Your task to perform on an android device: toggle javascript in the chrome app Image 0: 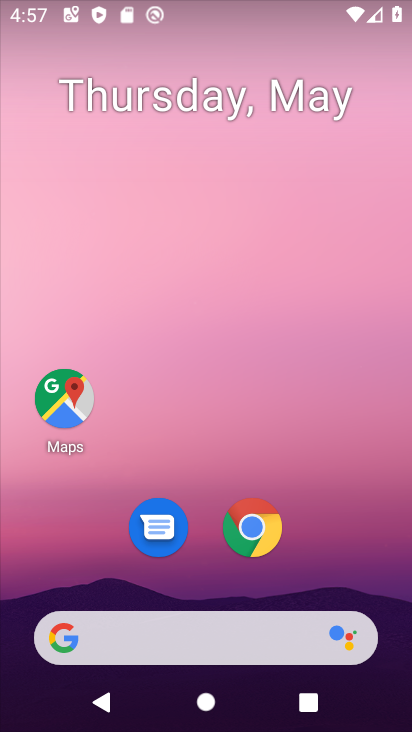
Step 0: drag from (365, 519) to (383, 14)
Your task to perform on an android device: toggle javascript in the chrome app Image 1: 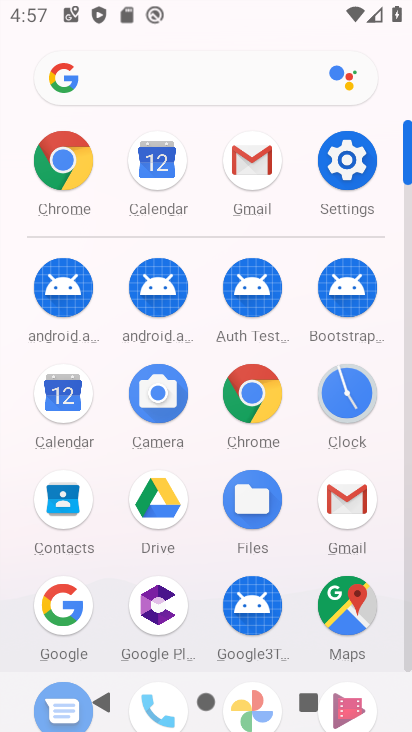
Step 1: click (78, 182)
Your task to perform on an android device: toggle javascript in the chrome app Image 2: 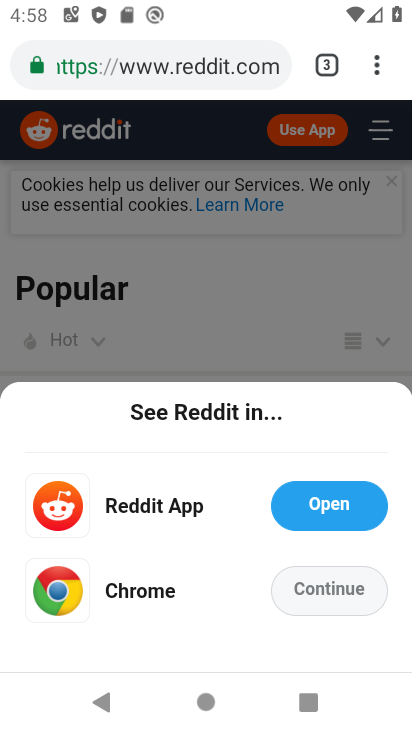
Step 2: drag from (382, 68) to (143, 572)
Your task to perform on an android device: toggle javascript in the chrome app Image 3: 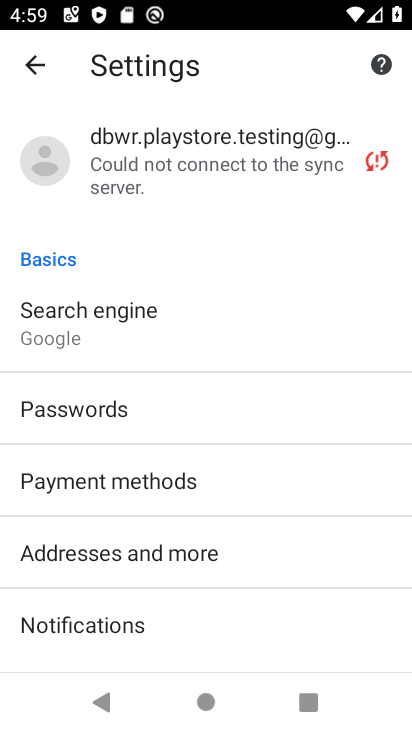
Step 3: drag from (255, 519) to (261, 75)
Your task to perform on an android device: toggle javascript in the chrome app Image 4: 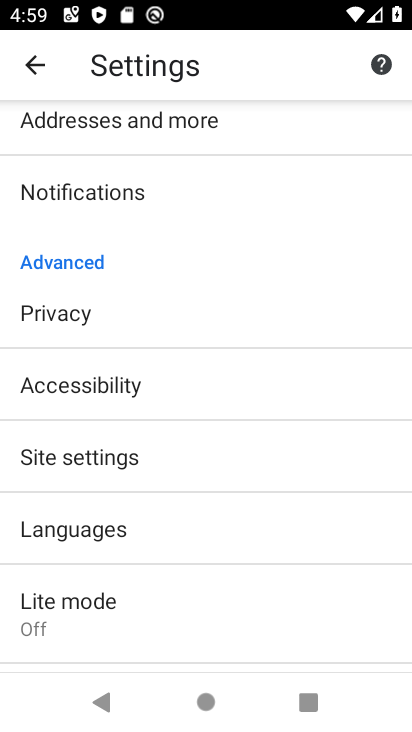
Step 4: drag from (134, 469) to (208, 148)
Your task to perform on an android device: toggle javascript in the chrome app Image 5: 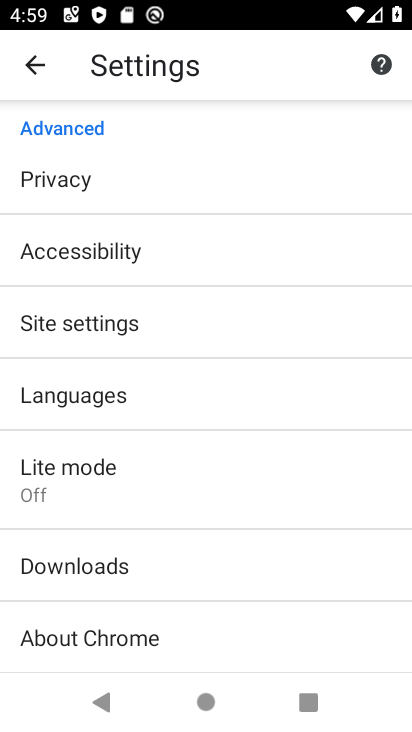
Step 5: click (131, 320)
Your task to perform on an android device: toggle javascript in the chrome app Image 6: 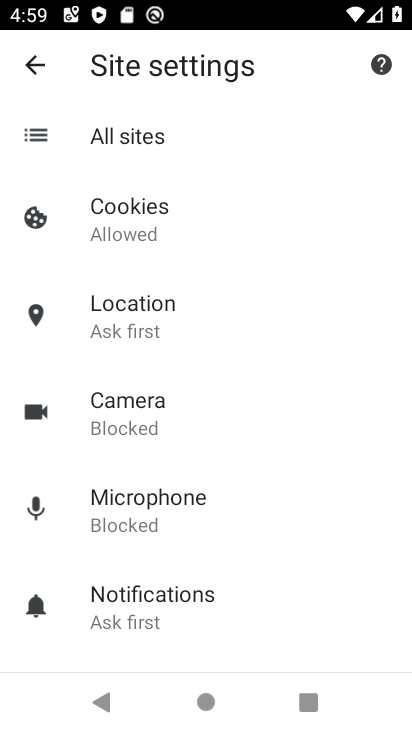
Step 6: drag from (176, 580) to (263, 156)
Your task to perform on an android device: toggle javascript in the chrome app Image 7: 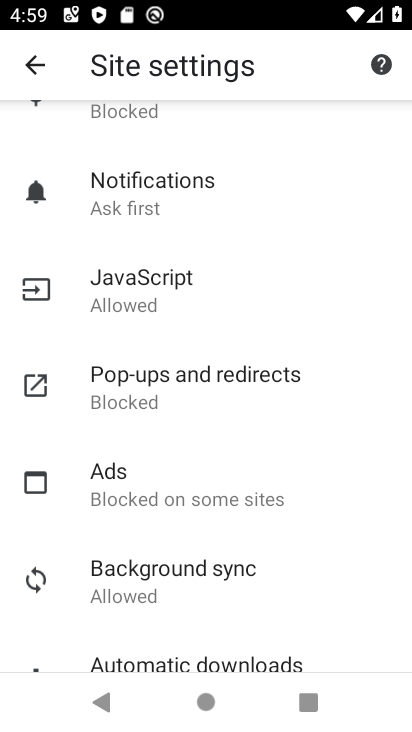
Step 7: click (172, 290)
Your task to perform on an android device: toggle javascript in the chrome app Image 8: 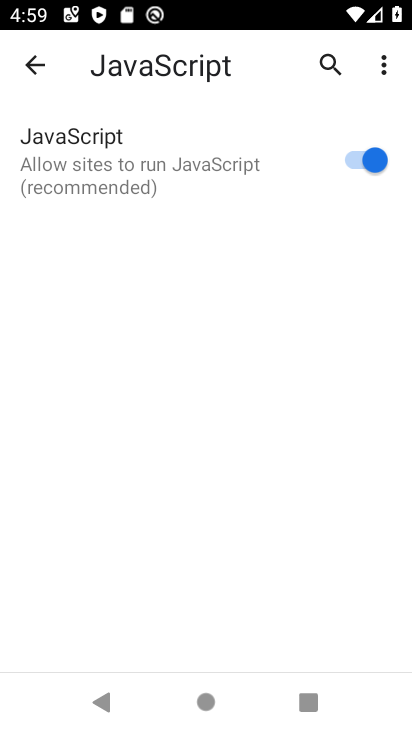
Step 8: click (355, 168)
Your task to perform on an android device: toggle javascript in the chrome app Image 9: 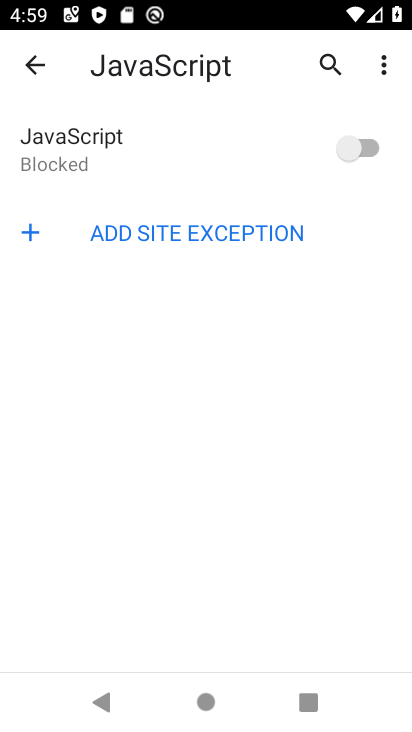
Step 9: task complete